Your task to perform on an android device: Clear all items from cart on costco. Search for usb-c to usb-a on costco, select the first entry, and add it to the cart. Image 0: 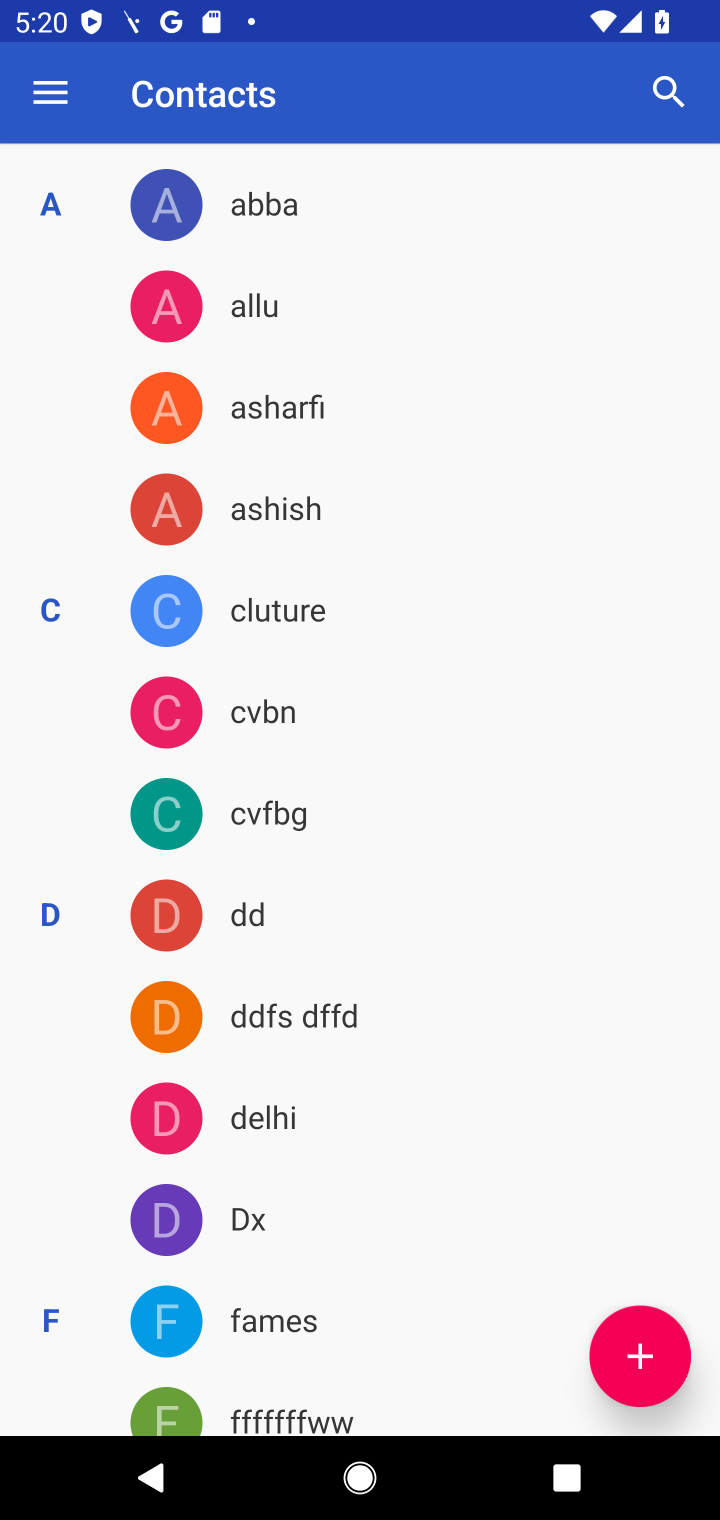
Step 0: press home button
Your task to perform on an android device: Clear all items from cart on costco. Search for usb-c to usb-a on costco, select the first entry, and add it to the cart. Image 1: 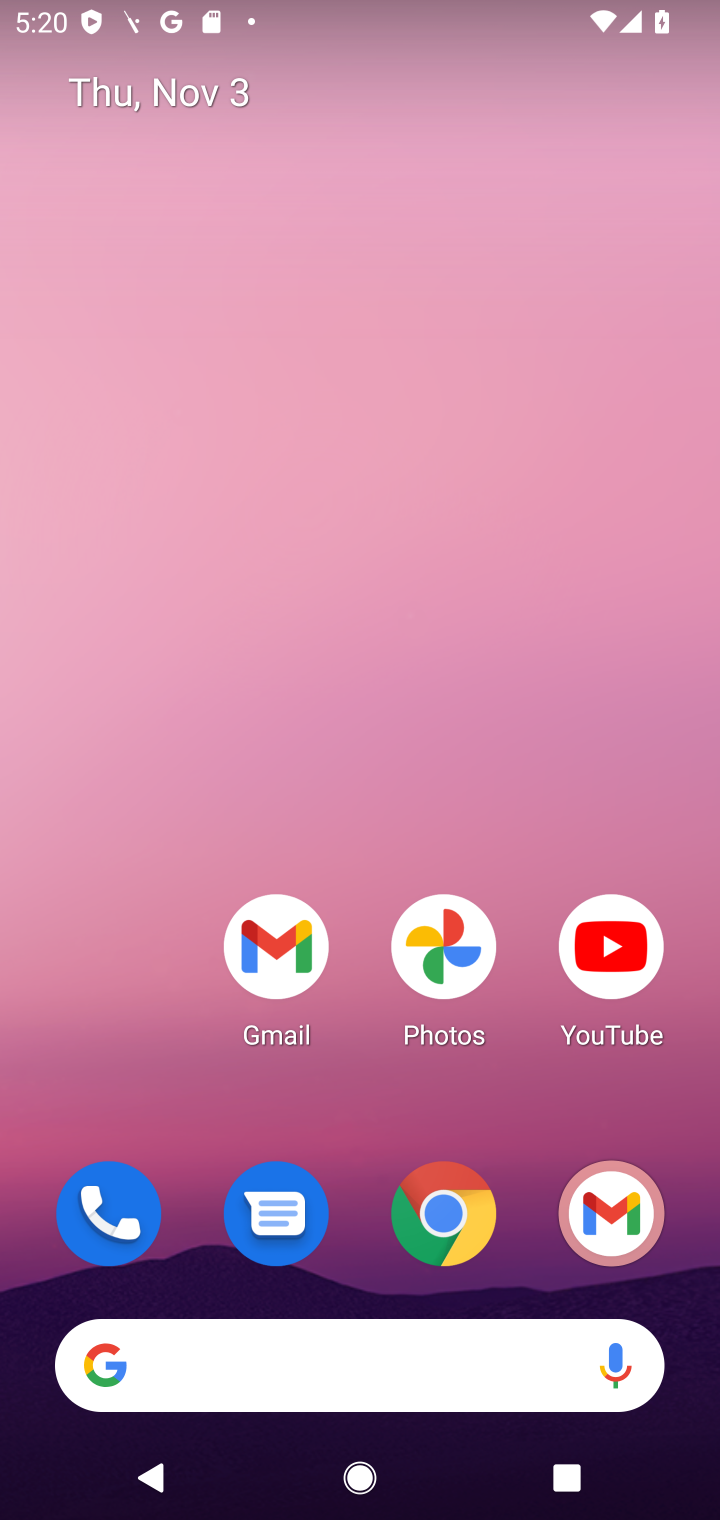
Step 1: click (432, 1228)
Your task to perform on an android device: Clear all items from cart on costco. Search for usb-c to usb-a on costco, select the first entry, and add it to the cart. Image 2: 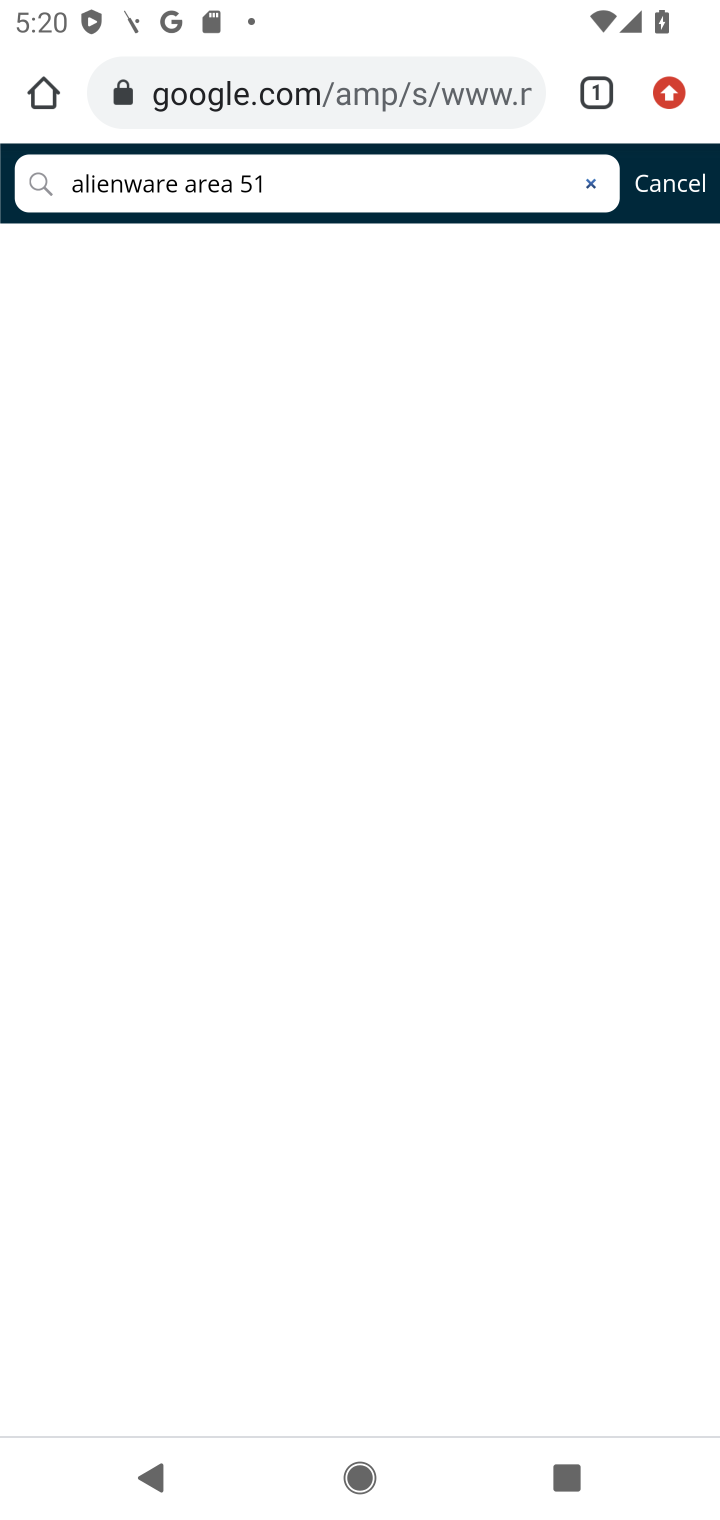
Step 2: click (347, 106)
Your task to perform on an android device: Clear all items from cart on costco. Search for usb-c to usb-a on costco, select the first entry, and add it to the cart. Image 3: 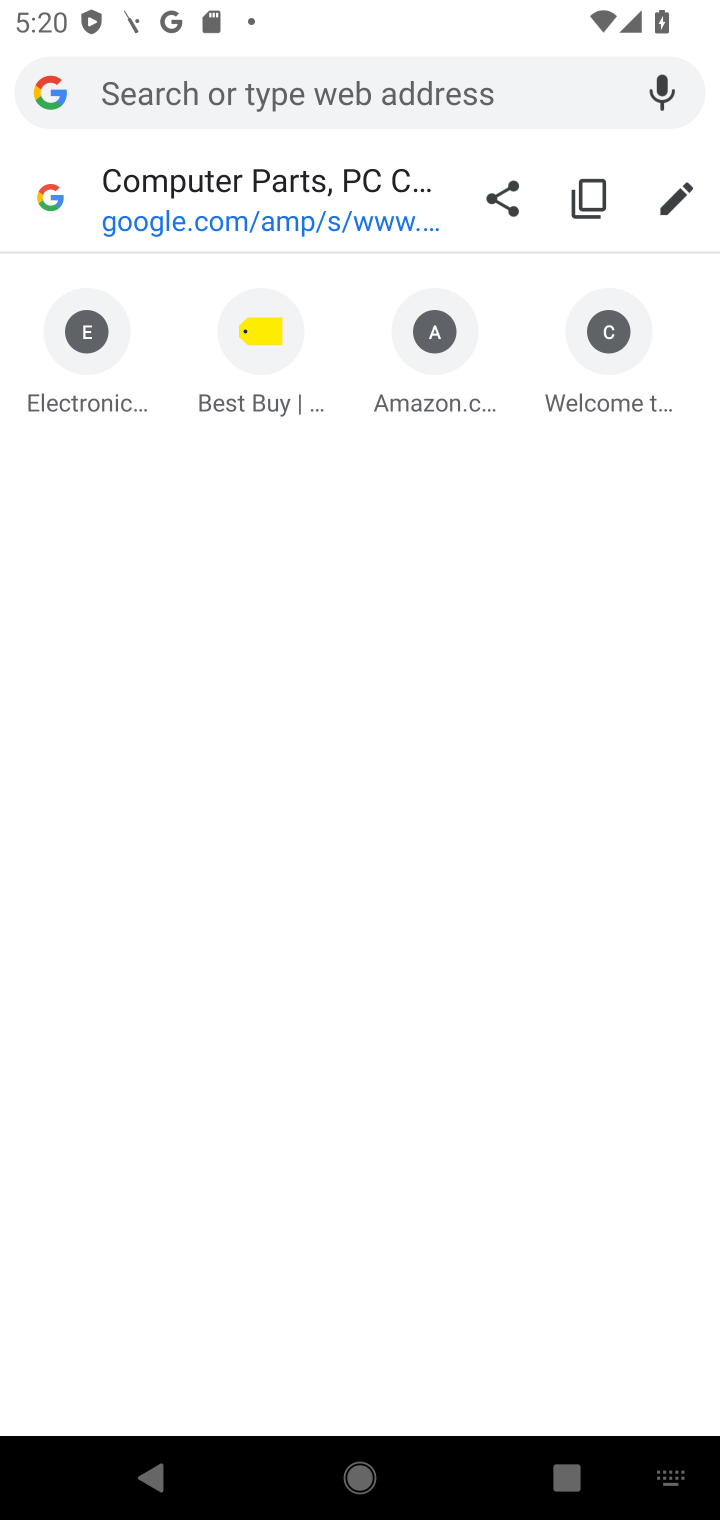
Step 3: type "costco.com"
Your task to perform on an android device: Clear all items from cart on costco. Search for usb-c to usb-a on costco, select the first entry, and add it to the cart. Image 4: 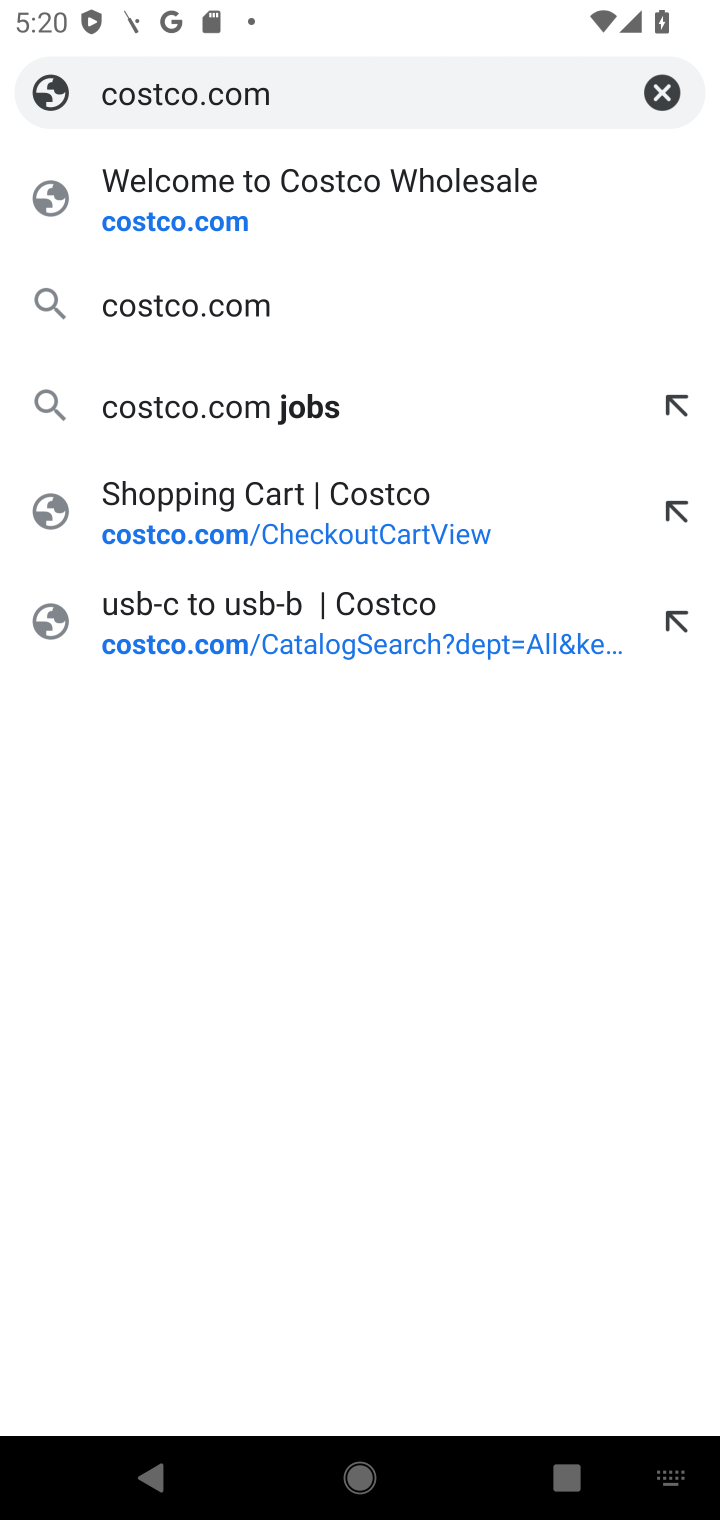
Step 4: click (192, 229)
Your task to perform on an android device: Clear all items from cart on costco. Search for usb-c to usb-a on costco, select the first entry, and add it to the cart. Image 5: 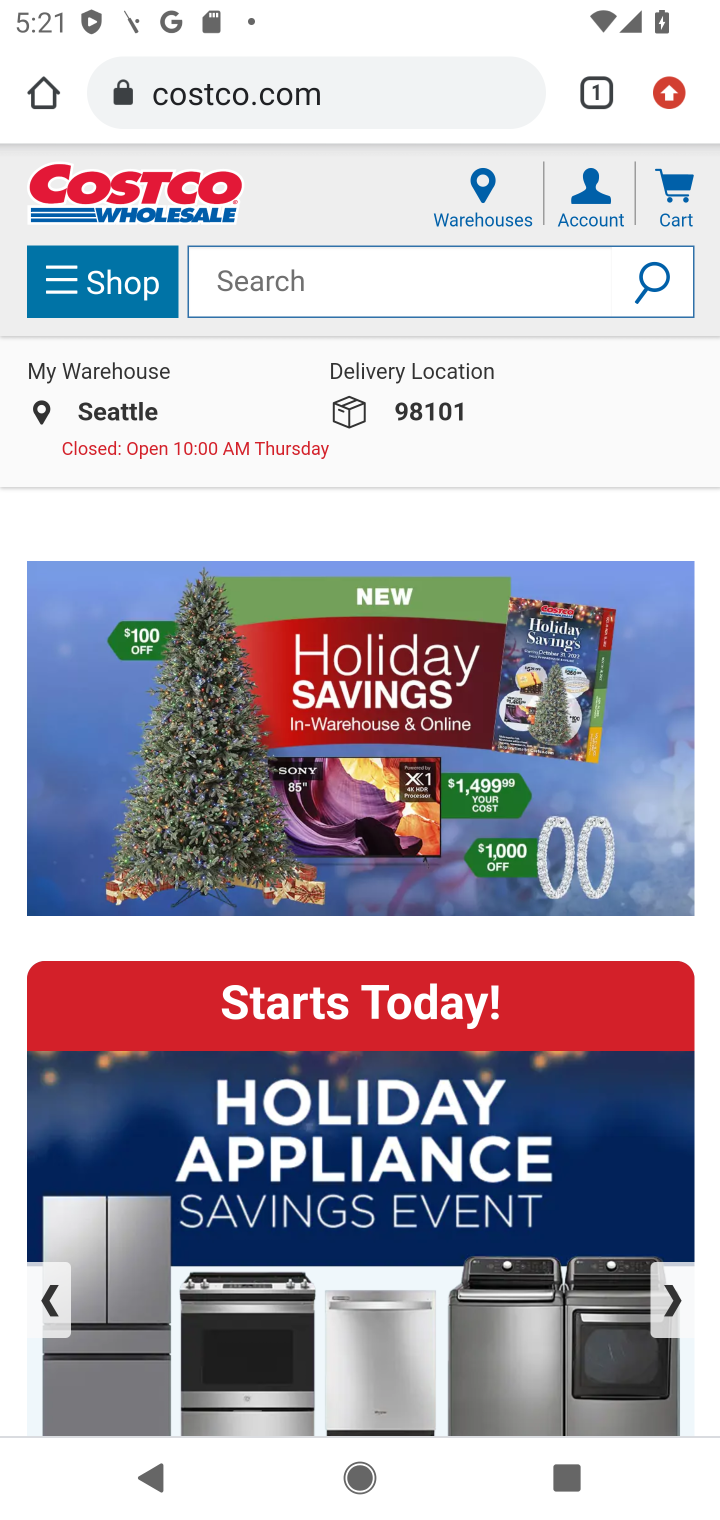
Step 5: click (672, 202)
Your task to perform on an android device: Clear all items from cart on costco. Search for usb-c to usb-a on costco, select the first entry, and add it to the cart. Image 6: 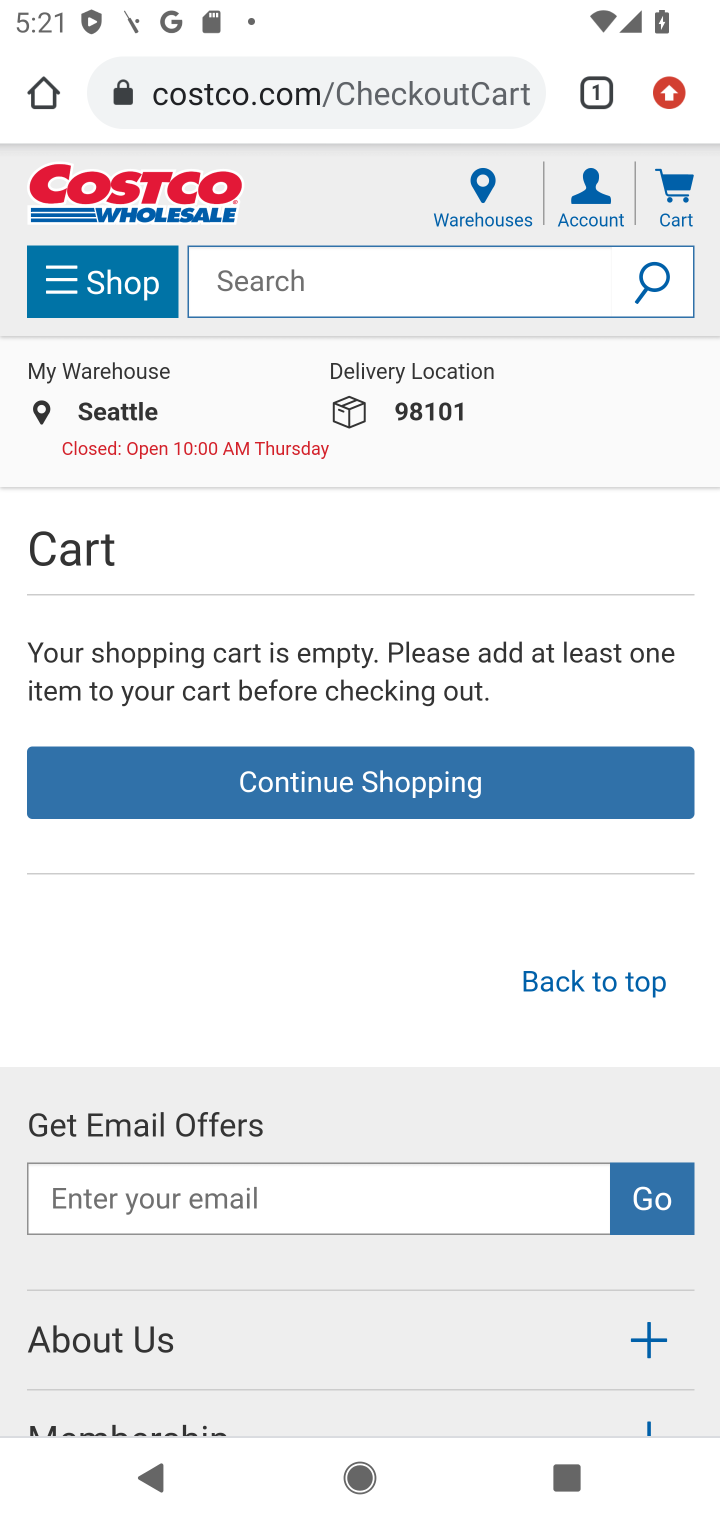
Step 6: click (323, 295)
Your task to perform on an android device: Clear all items from cart on costco. Search for usb-c to usb-a on costco, select the first entry, and add it to the cart. Image 7: 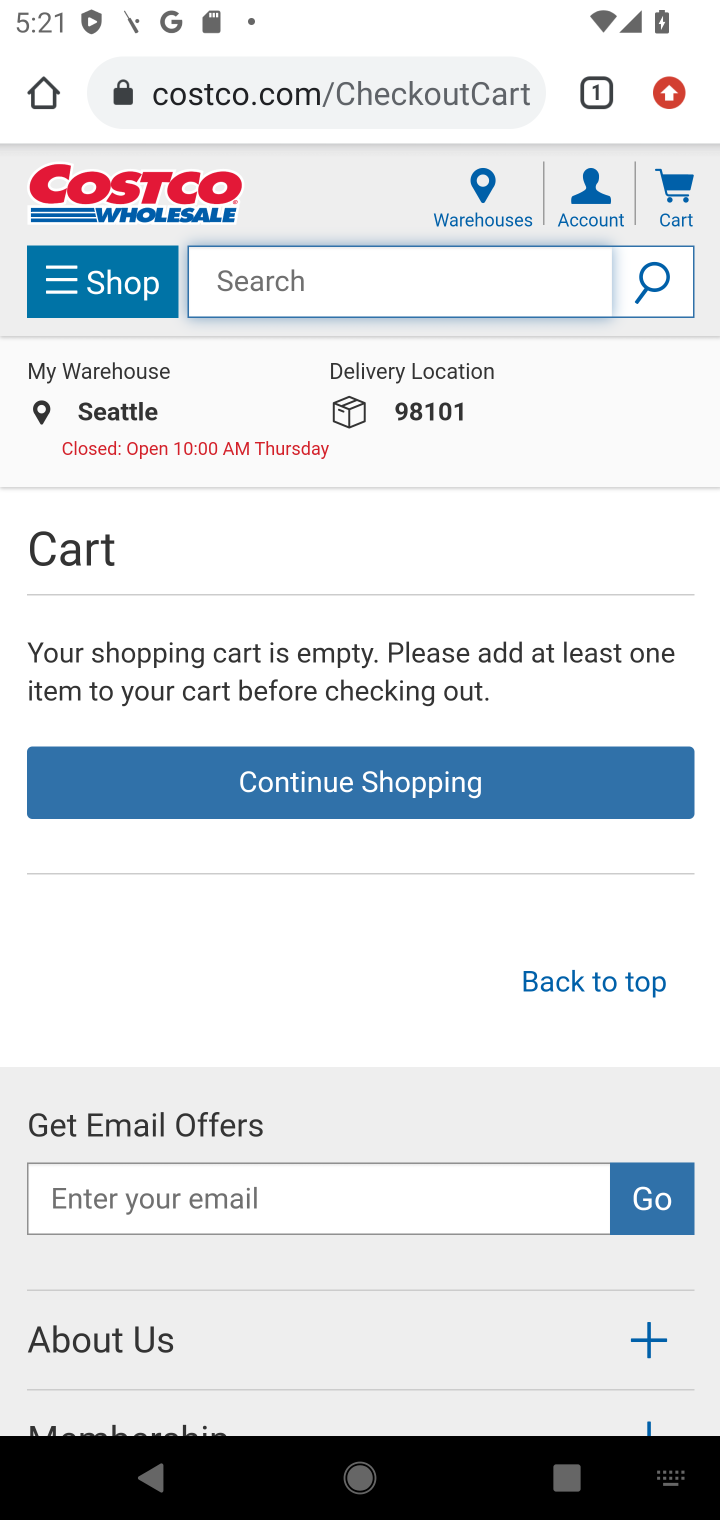
Step 7: type "usb-c to usb-a"
Your task to perform on an android device: Clear all items from cart on costco. Search for usb-c to usb-a on costco, select the first entry, and add it to the cart. Image 8: 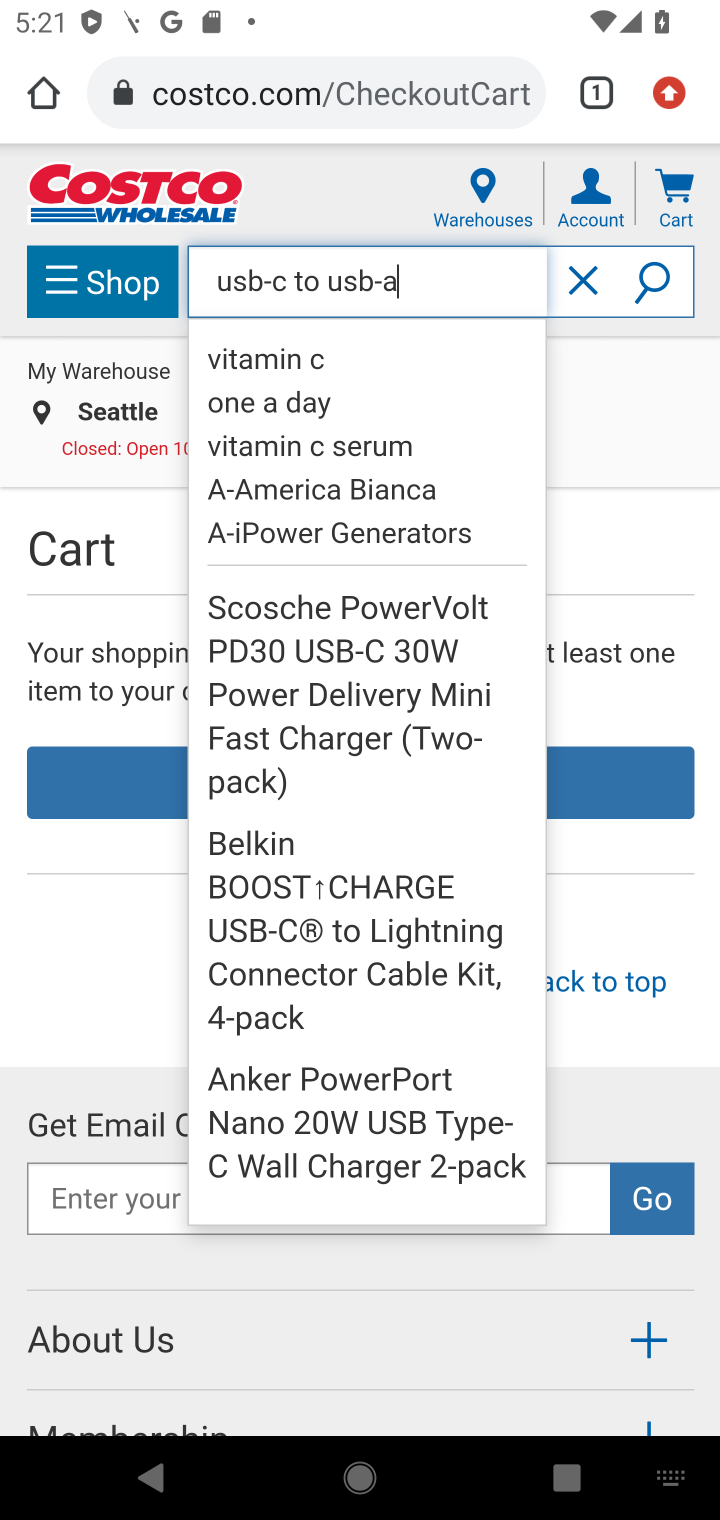
Step 8: click (647, 276)
Your task to perform on an android device: Clear all items from cart on costco. Search for usb-c to usb-a on costco, select the first entry, and add it to the cart. Image 9: 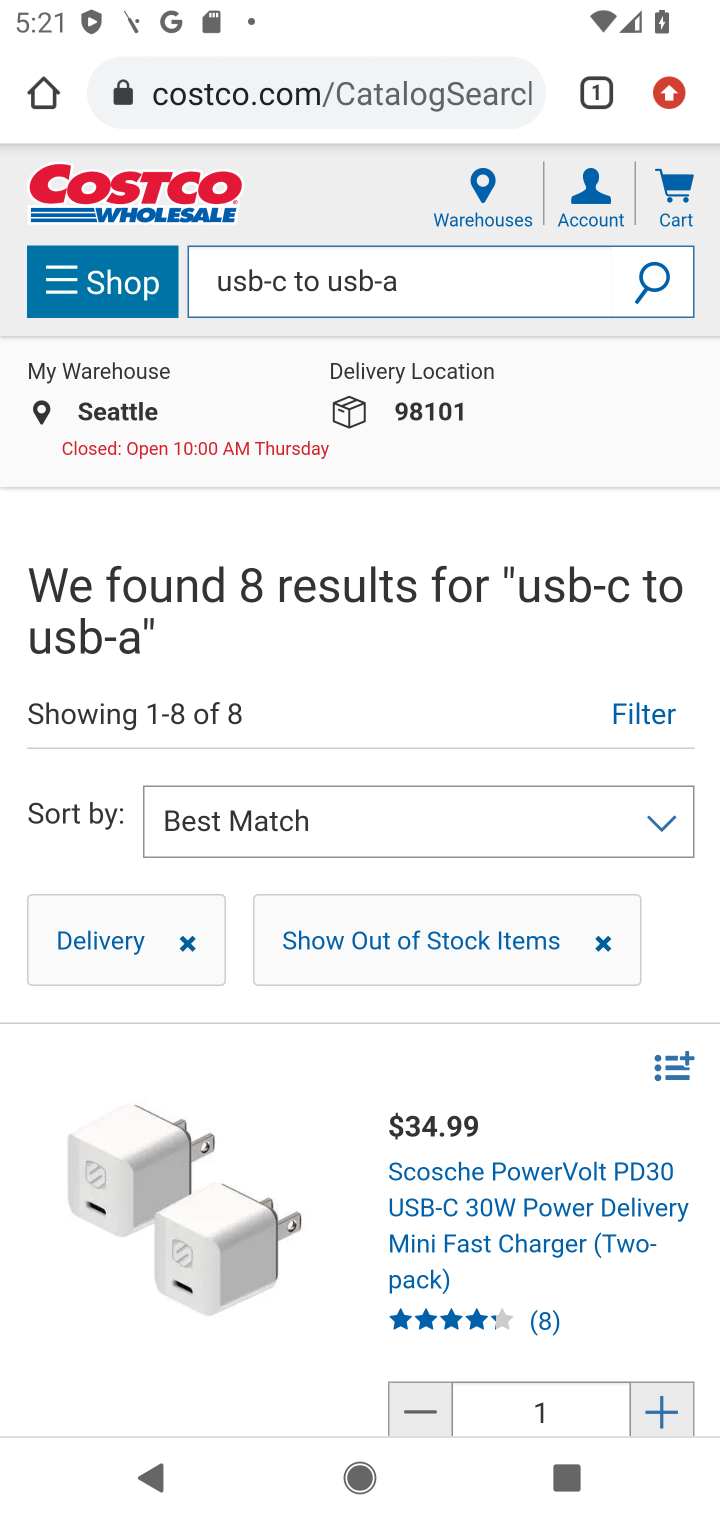
Step 9: drag from (327, 1032) to (388, 596)
Your task to perform on an android device: Clear all items from cart on costco. Search for usb-c to usb-a on costco, select the first entry, and add it to the cart. Image 10: 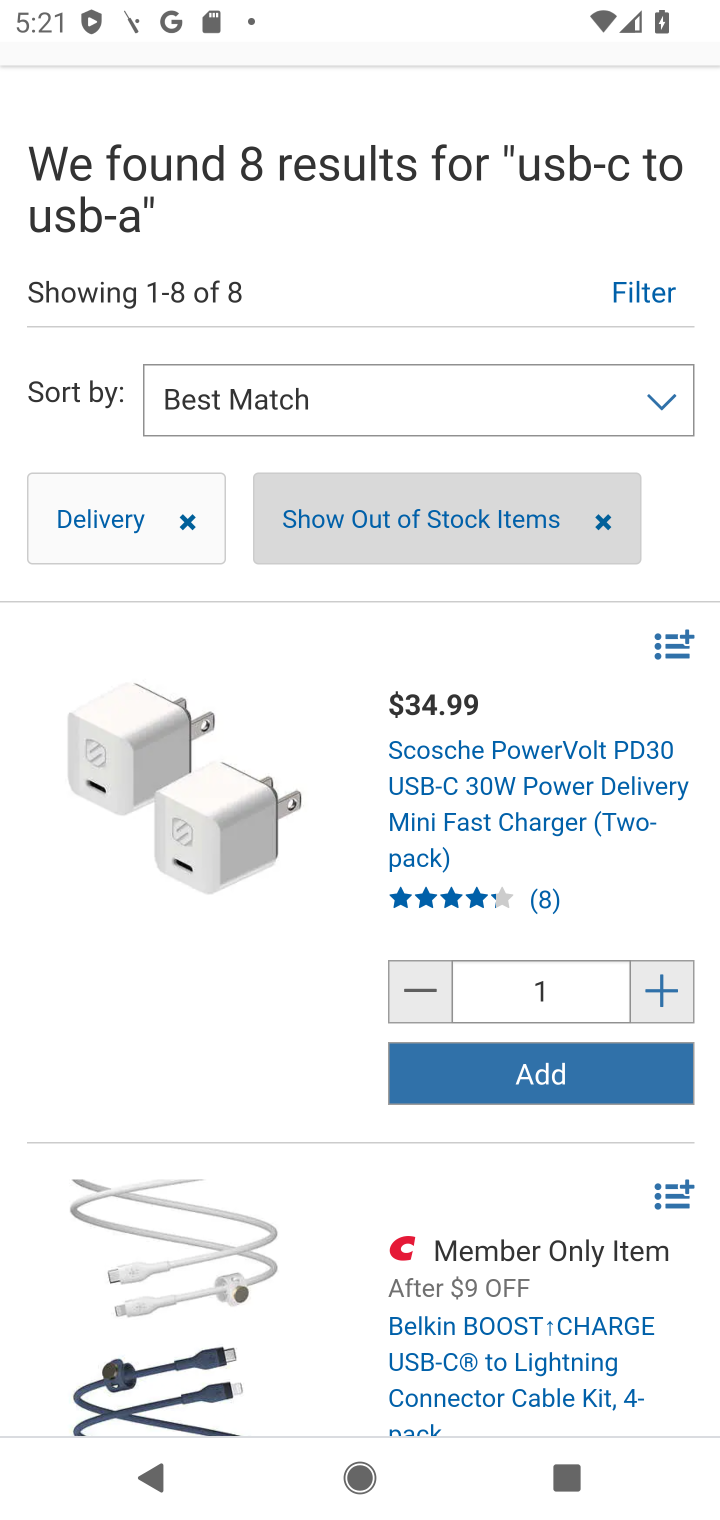
Step 10: click (258, 825)
Your task to perform on an android device: Clear all items from cart on costco. Search for usb-c to usb-a on costco, select the first entry, and add it to the cart. Image 11: 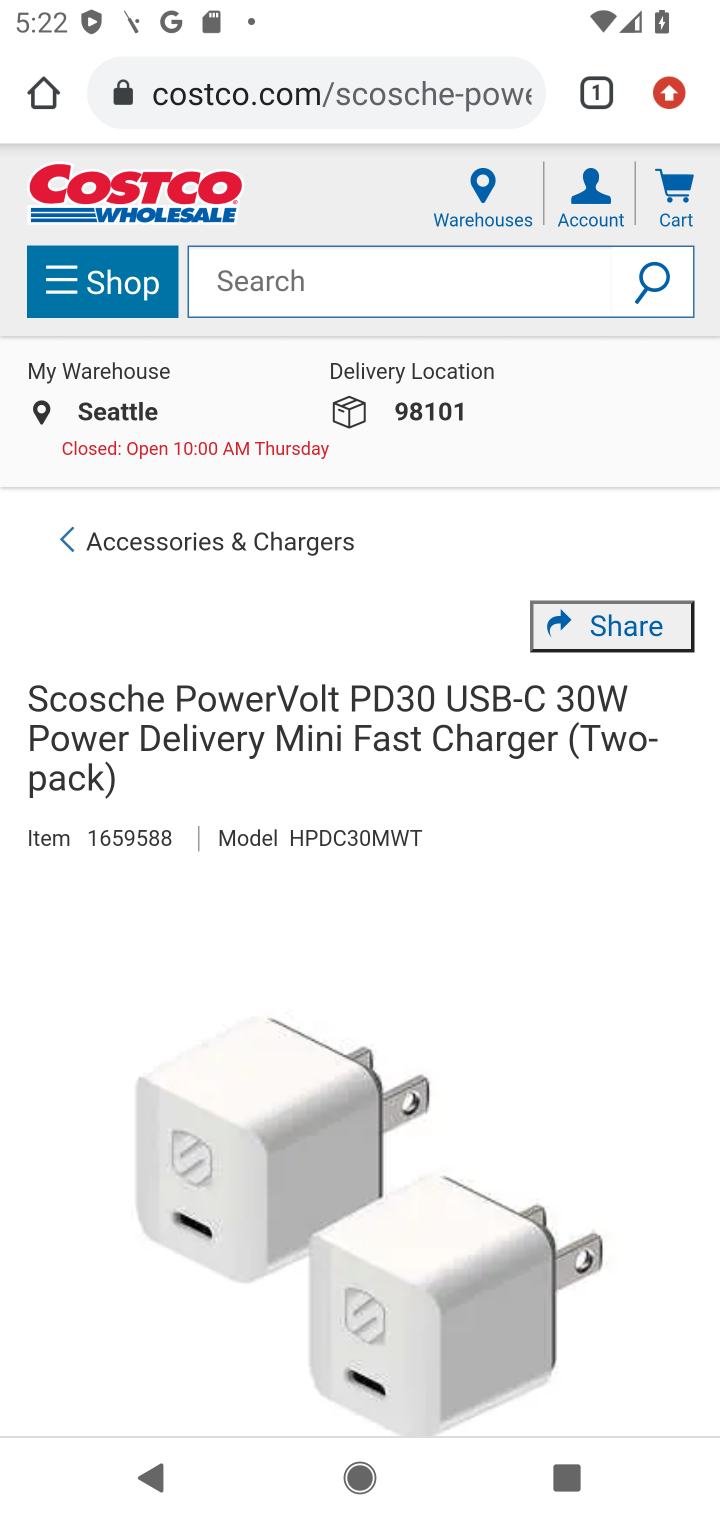
Step 11: task complete